Your task to perform on an android device: set default search engine in the chrome app Image 0: 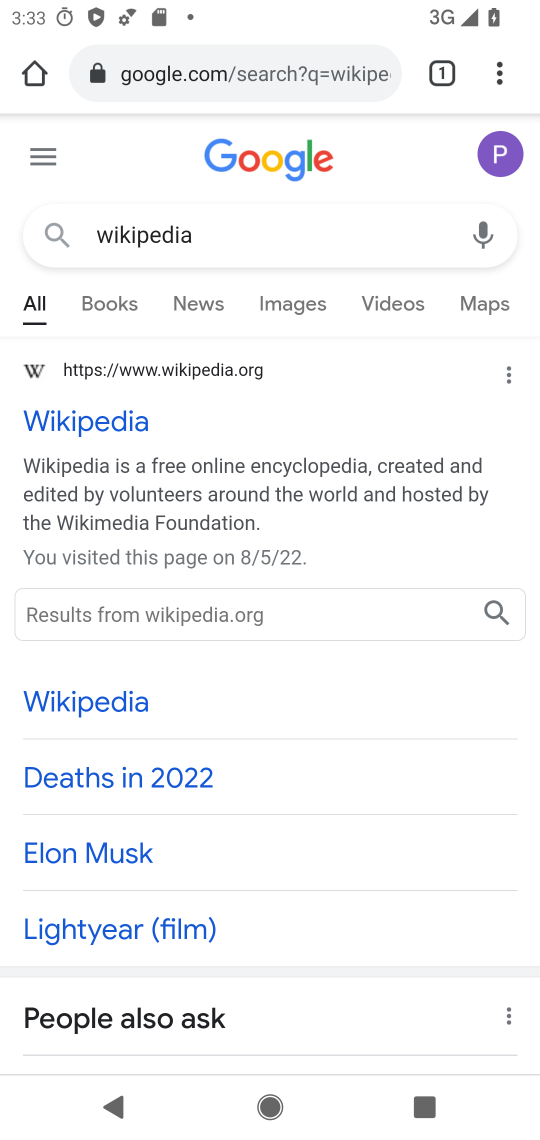
Step 0: press home button
Your task to perform on an android device: set default search engine in the chrome app Image 1: 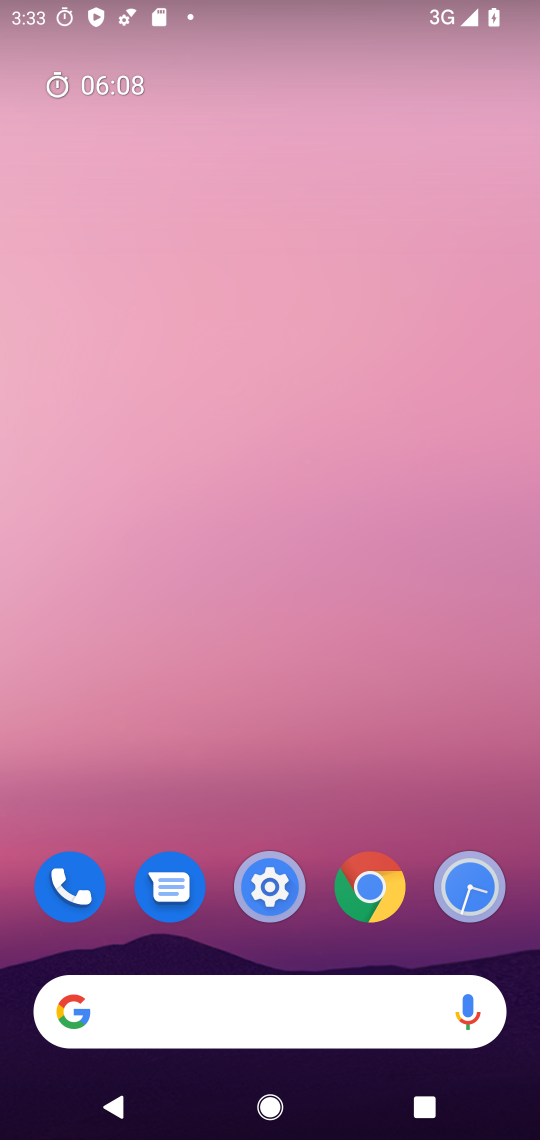
Step 1: drag from (304, 352) to (306, 143)
Your task to perform on an android device: set default search engine in the chrome app Image 2: 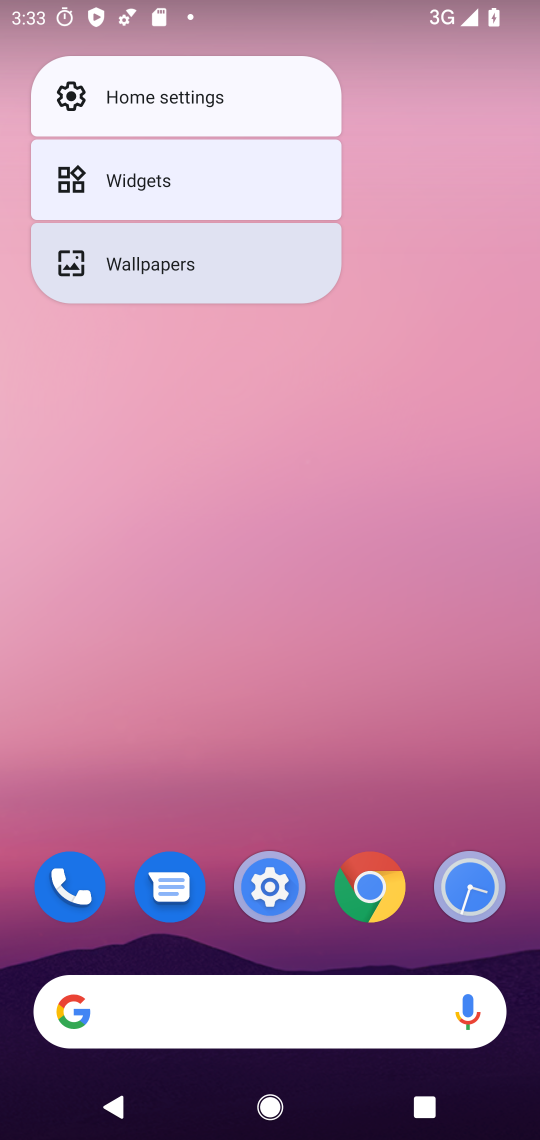
Step 2: click (443, 629)
Your task to perform on an android device: set default search engine in the chrome app Image 3: 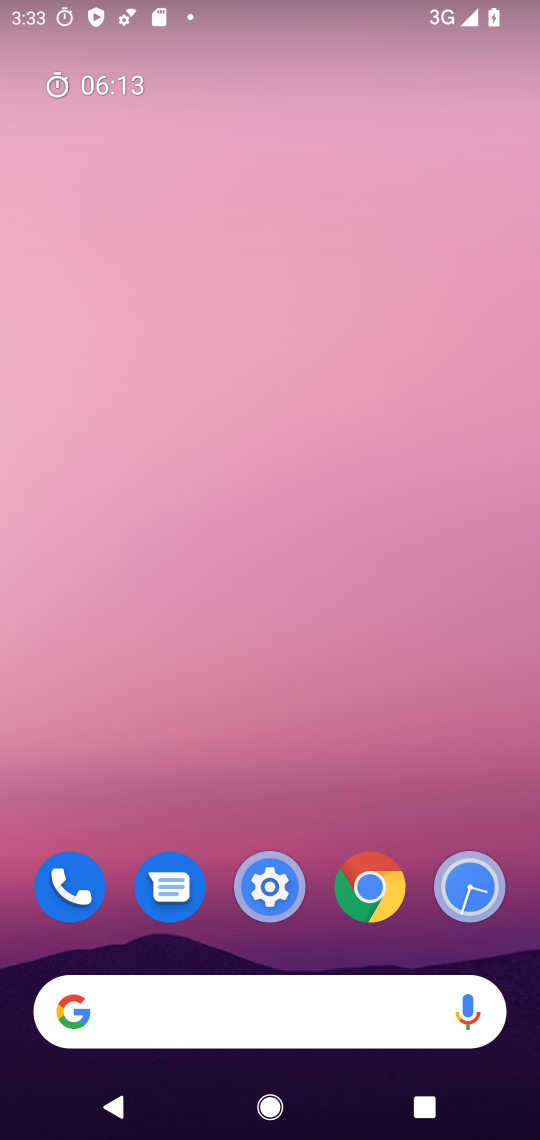
Step 3: drag from (287, 636) to (288, 124)
Your task to perform on an android device: set default search engine in the chrome app Image 4: 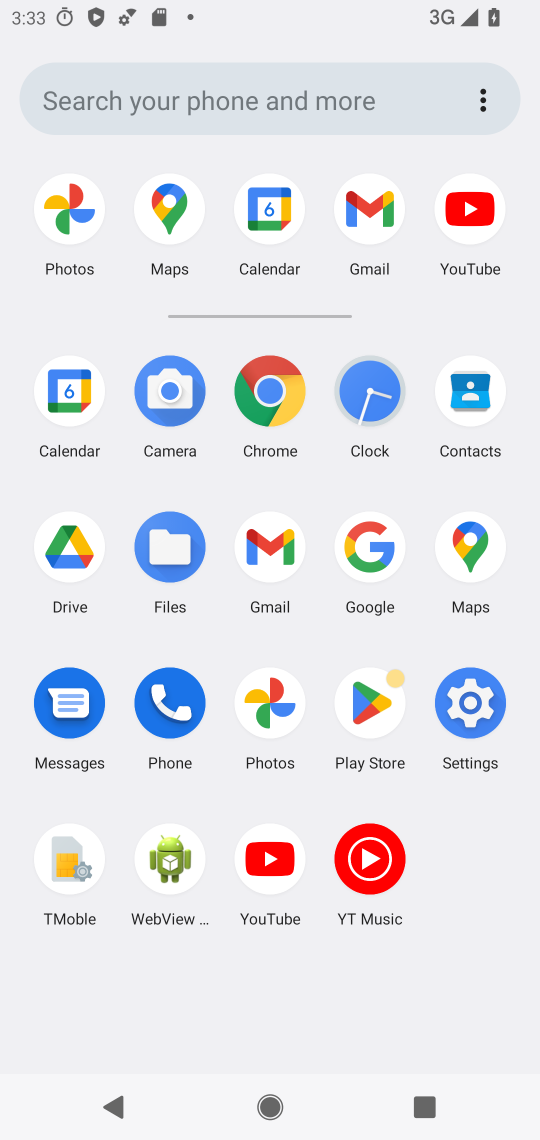
Step 4: click (266, 387)
Your task to perform on an android device: set default search engine in the chrome app Image 5: 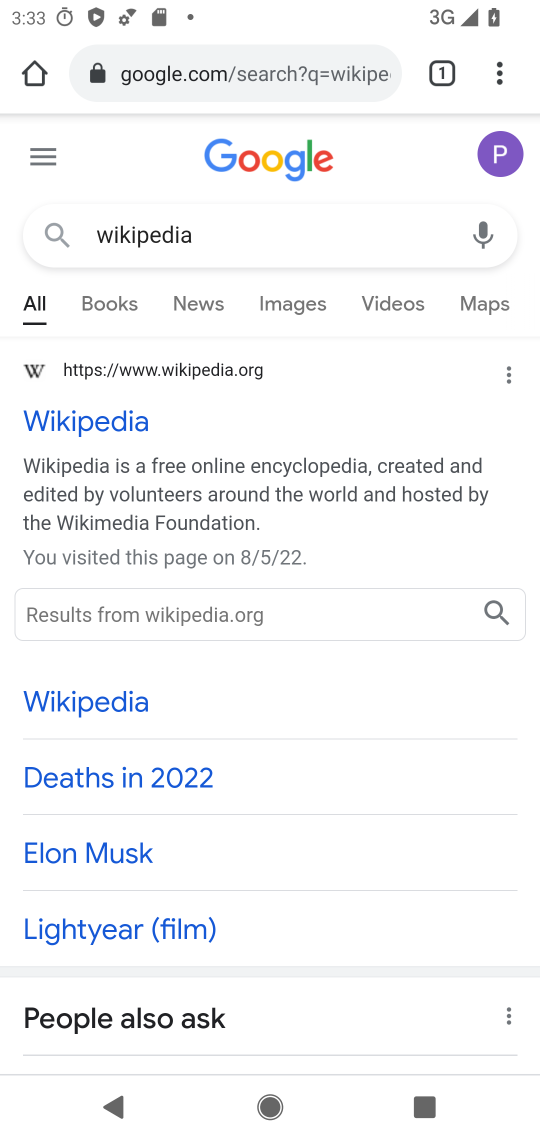
Step 5: click (497, 76)
Your task to perform on an android device: set default search engine in the chrome app Image 6: 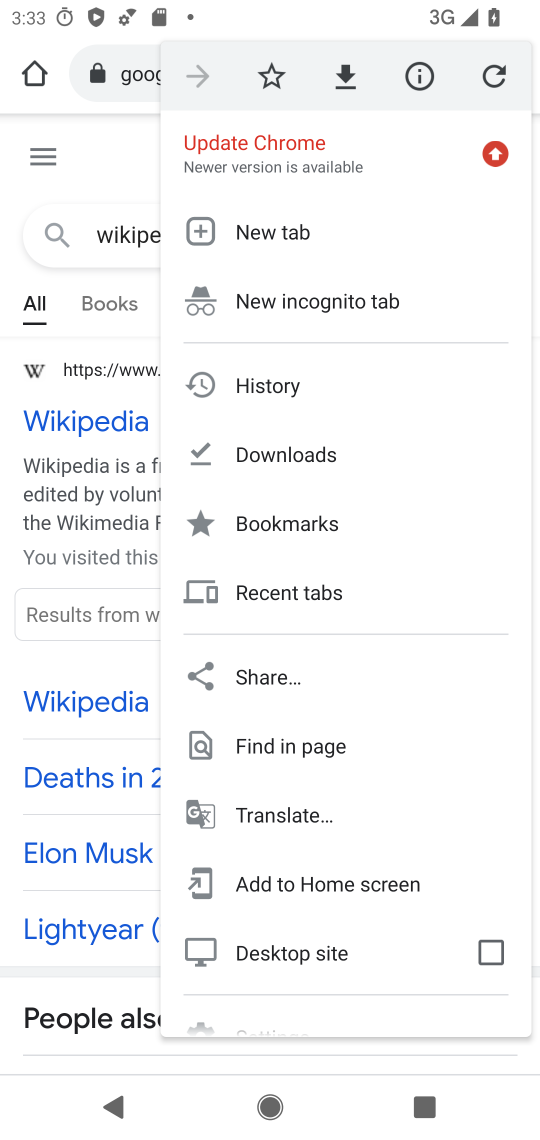
Step 6: drag from (463, 526) to (448, 320)
Your task to perform on an android device: set default search engine in the chrome app Image 7: 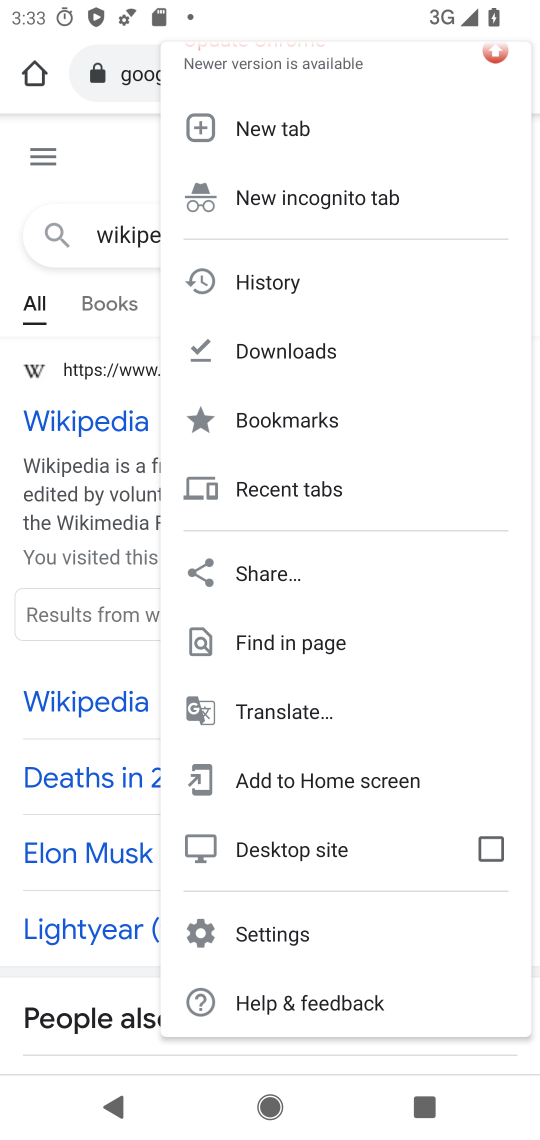
Step 7: drag from (416, 583) to (435, 403)
Your task to perform on an android device: set default search engine in the chrome app Image 8: 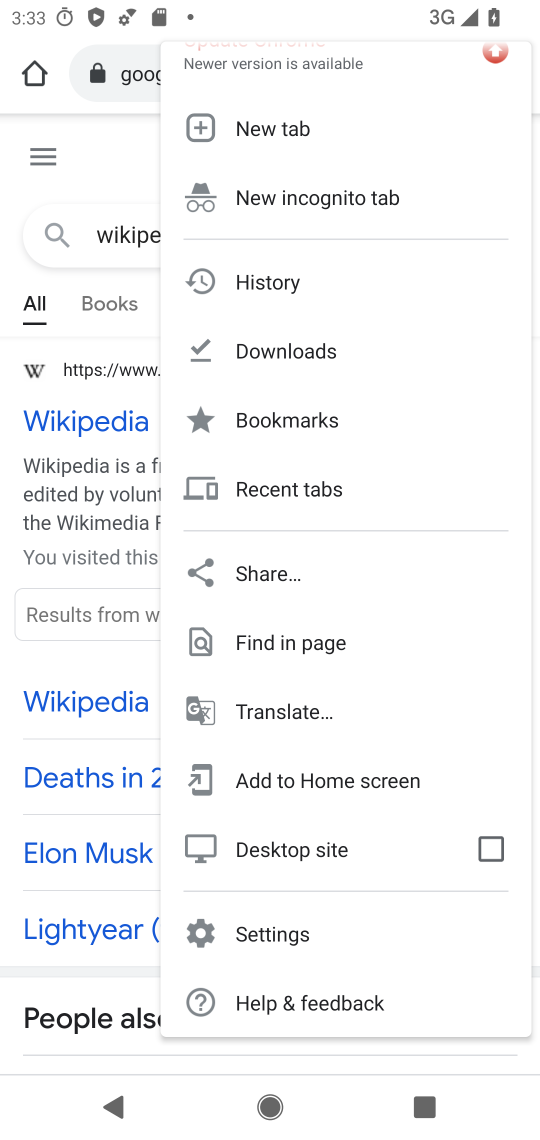
Step 8: click (314, 935)
Your task to perform on an android device: set default search engine in the chrome app Image 9: 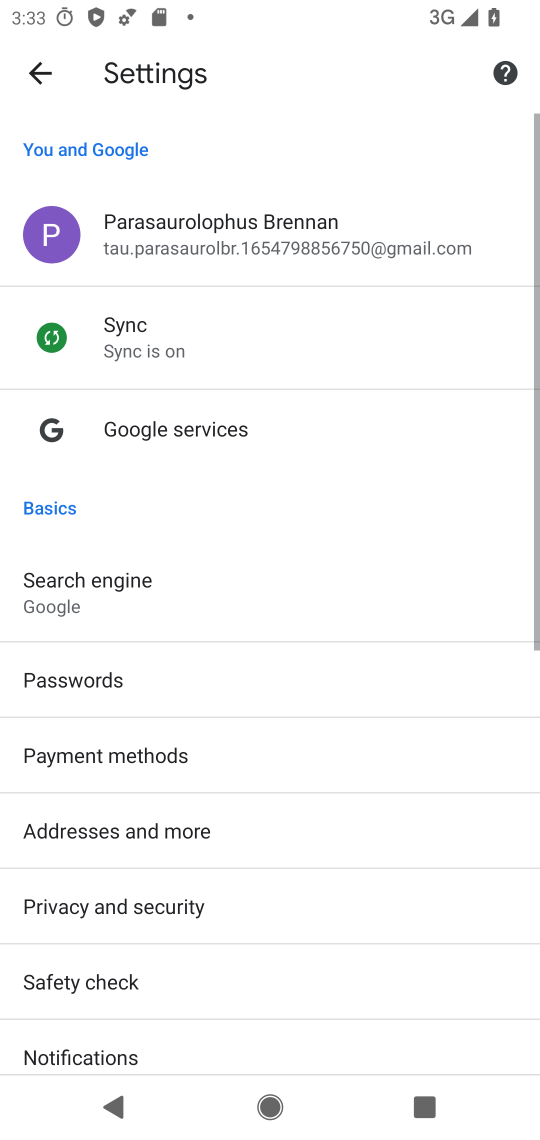
Step 9: drag from (364, 682) to (371, 586)
Your task to perform on an android device: set default search engine in the chrome app Image 10: 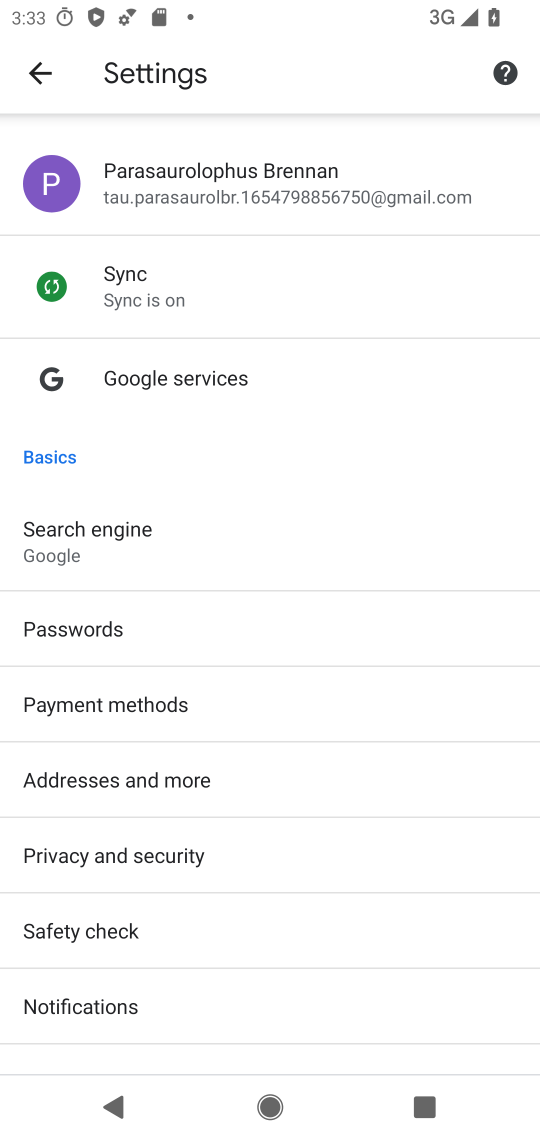
Step 10: drag from (377, 847) to (392, 589)
Your task to perform on an android device: set default search engine in the chrome app Image 11: 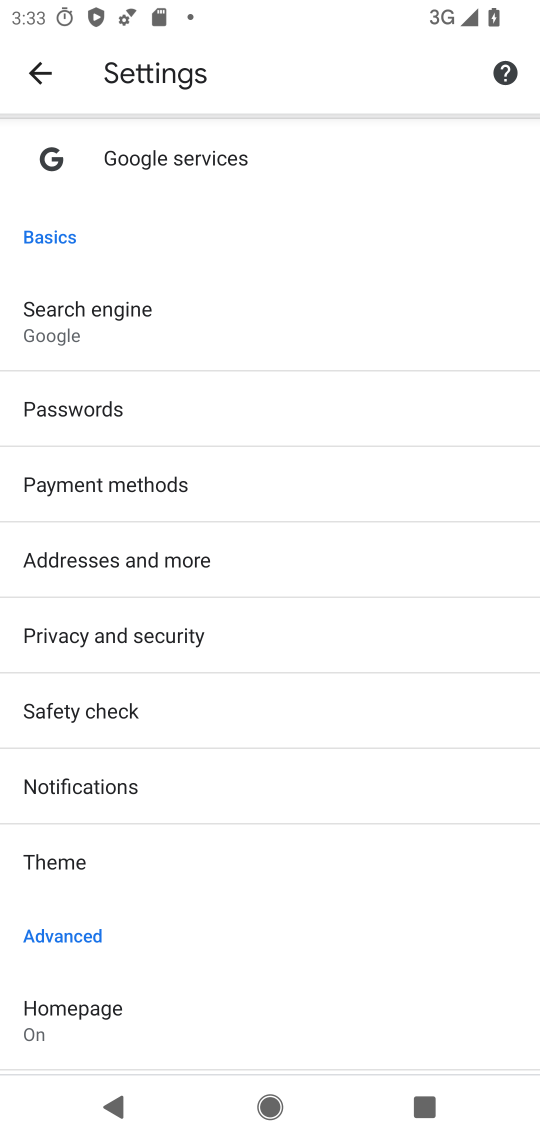
Step 11: drag from (367, 839) to (397, 552)
Your task to perform on an android device: set default search engine in the chrome app Image 12: 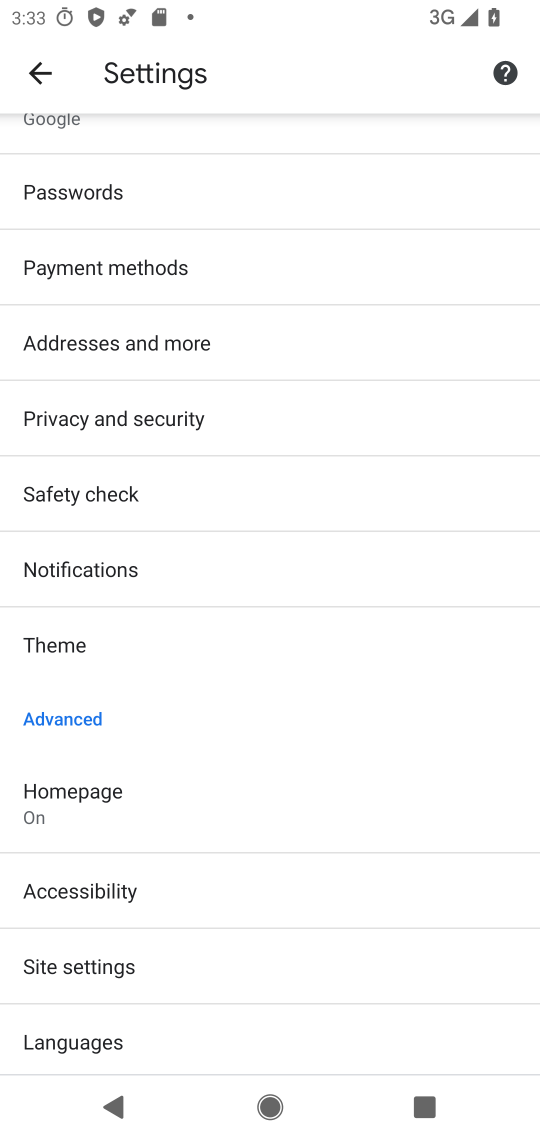
Step 12: drag from (376, 675) to (395, 569)
Your task to perform on an android device: set default search engine in the chrome app Image 13: 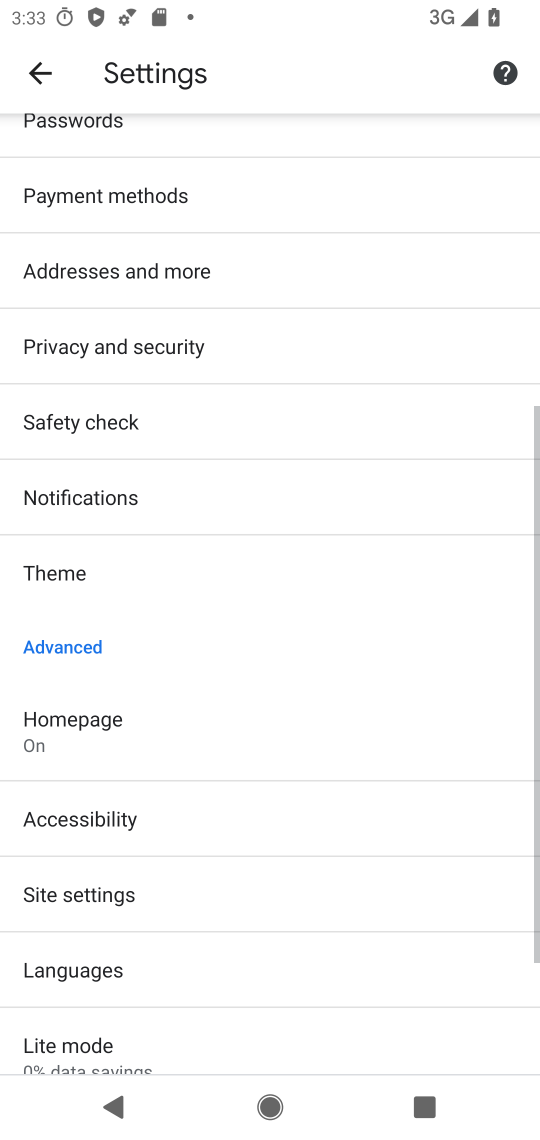
Step 13: drag from (363, 854) to (388, 617)
Your task to perform on an android device: set default search engine in the chrome app Image 14: 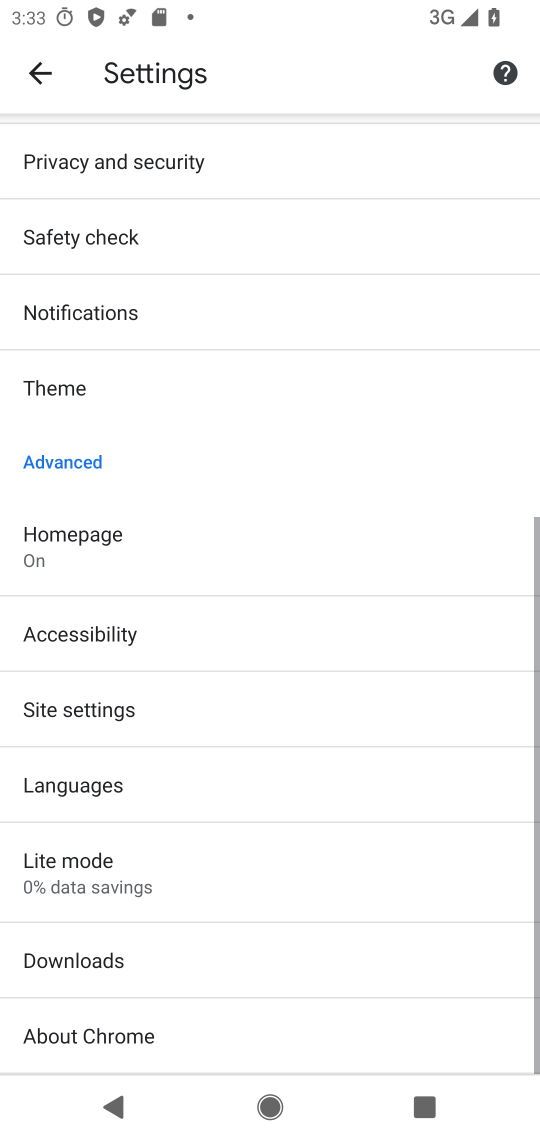
Step 14: drag from (352, 883) to (421, 648)
Your task to perform on an android device: set default search engine in the chrome app Image 15: 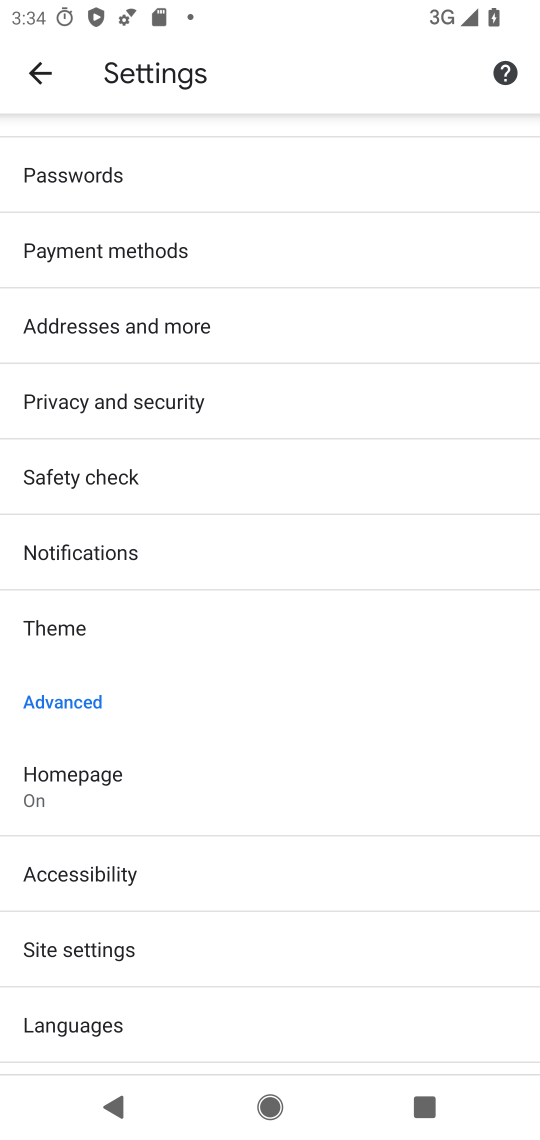
Step 15: drag from (404, 259) to (414, 669)
Your task to perform on an android device: set default search engine in the chrome app Image 16: 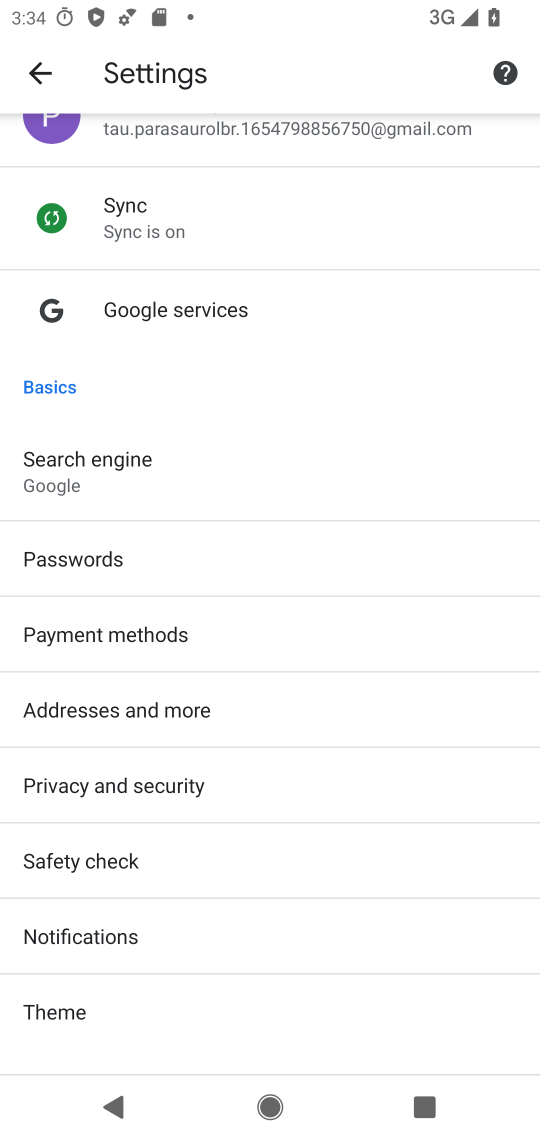
Step 16: click (115, 465)
Your task to perform on an android device: set default search engine in the chrome app Image 17: 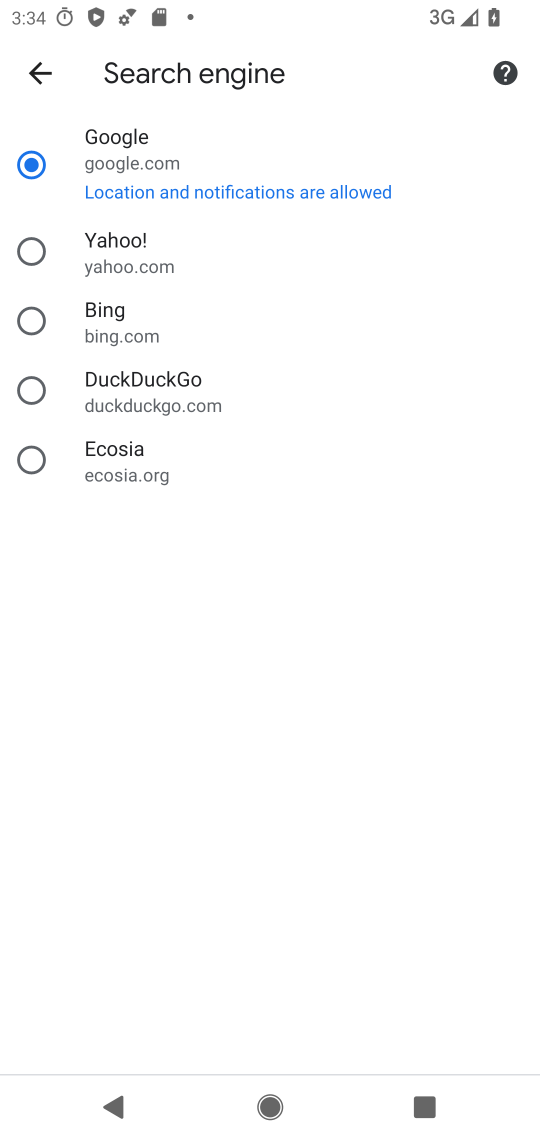
Step 17: click (97, 309)
Your task to perform on an android device: set default search engine in the chrome app Image 18: 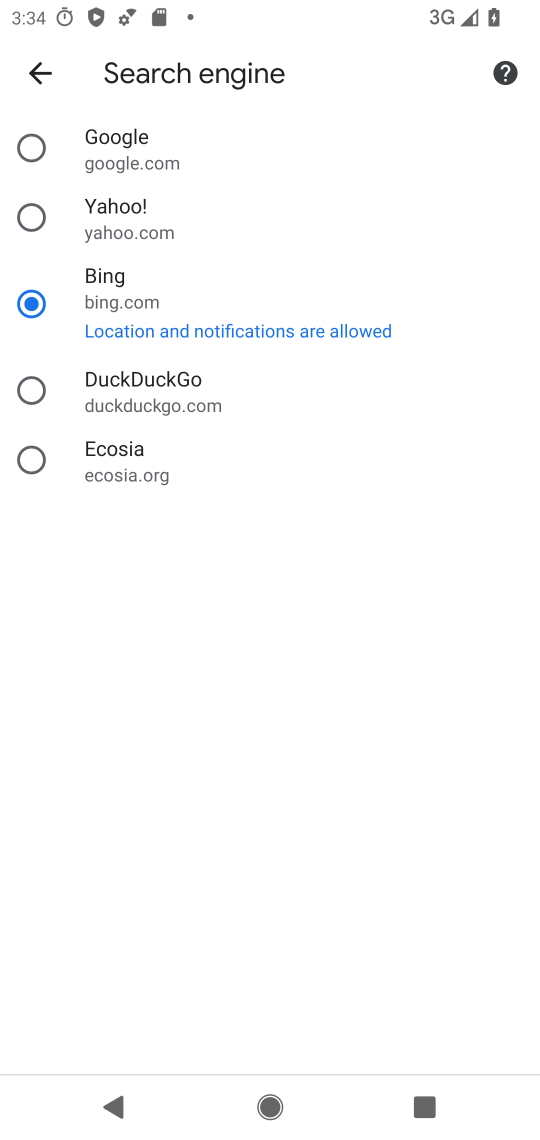
Step 18: task complete